Your task to perform on an android device: Go to location settings Image 0: 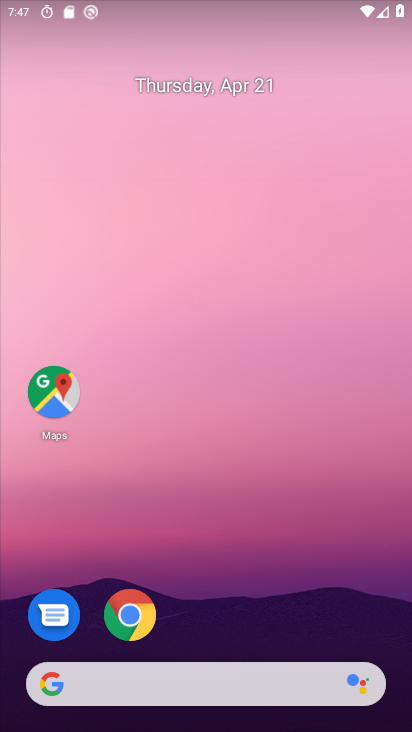
Step 0: press home button
Your task to perform on an android device: Go to location settings Image 1: 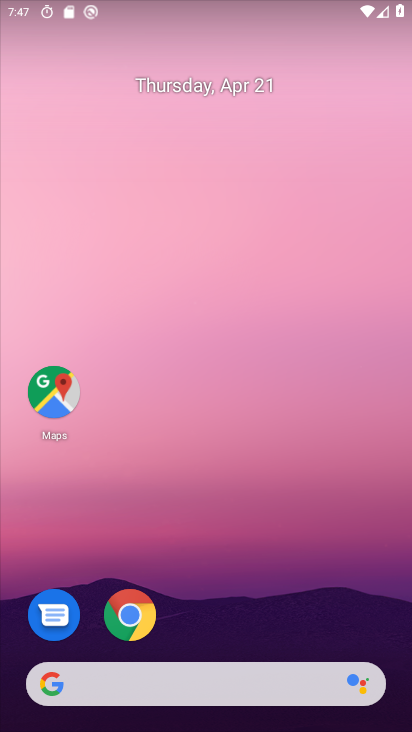
Step 1: drag from (164, 680) to (350, 88)
Your task to perform on an android device: Go to location settings Image 2: 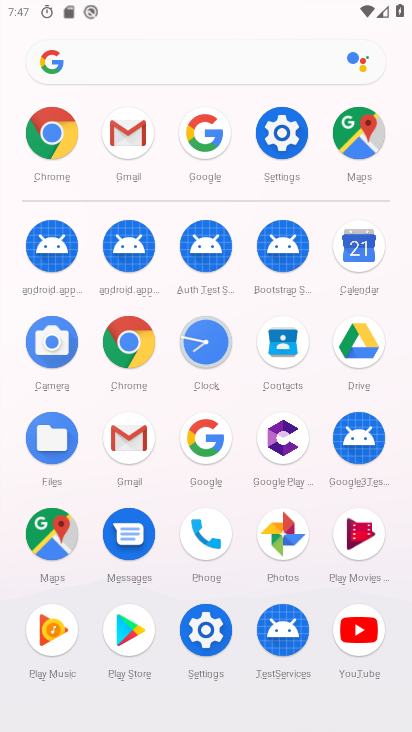
Step 2: click (287, 138)
Your task to perform on an android device: Go to location settings Image 3: 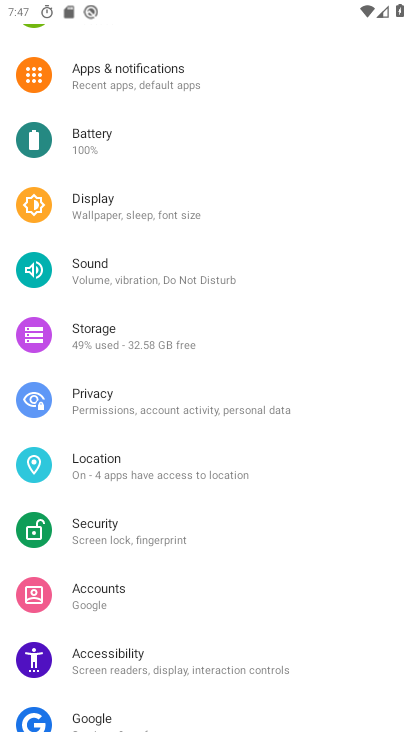
Step 3: click (129, 470)
Your task to perform on an android device: Go to location settings Image 4: 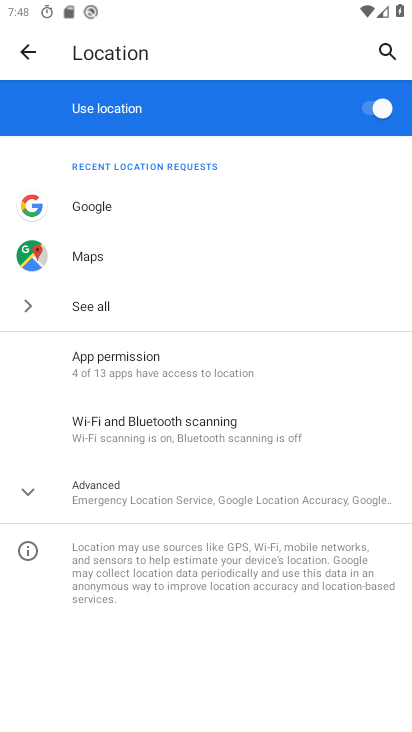
Step 4: click (87, 308)
Your task to perform on an android device: Go to location settings Image 5: 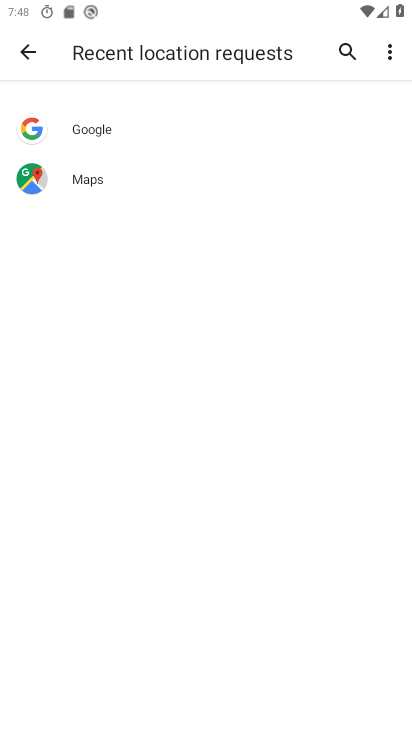
Step 5: click (15, 46)
Your task to perform on an android device: Go to location settings Image 6: 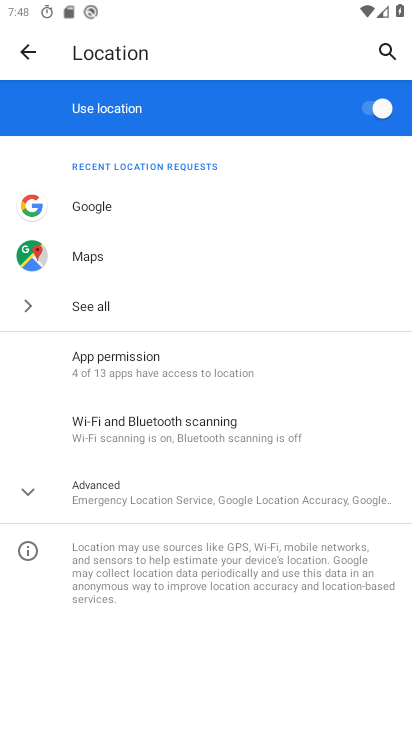
Step 6: task complete